Your task to perform on an android device: open sync settings in chrome Image 0: 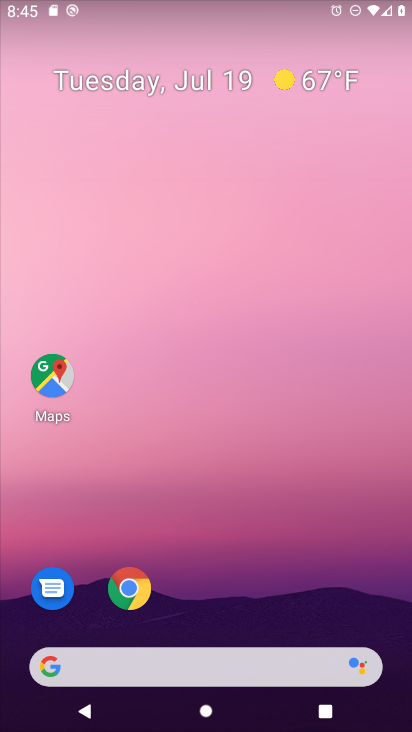
Step 0: press home button
Your task to perform on an android device: open sync settings in chrome Image 1: 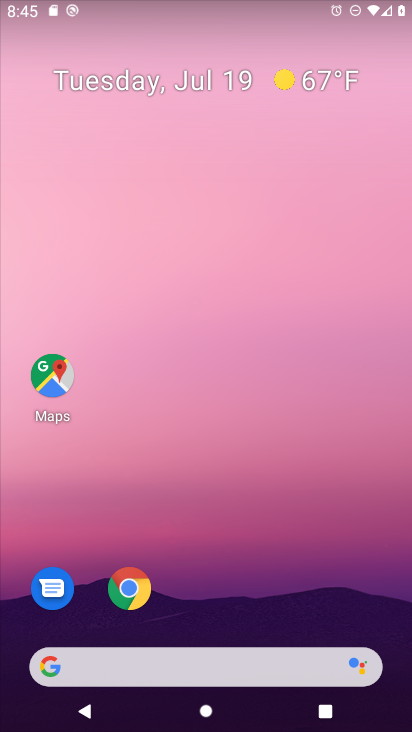
Step 1: drag from (342, 595) to (354, 129)
Your task to perform on an android device: open sync settings in chrome Image 2: 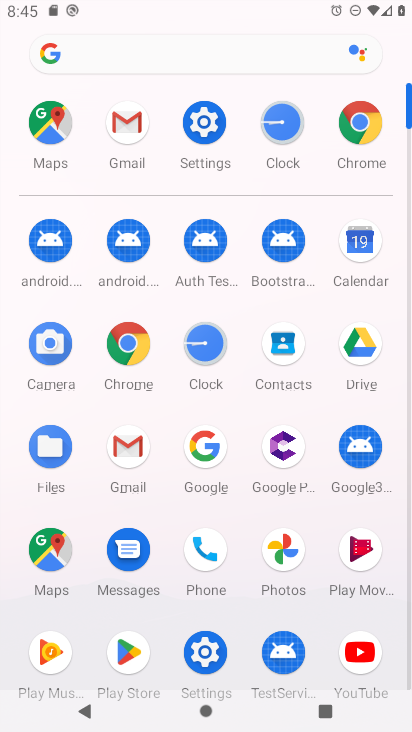
Step 2: click (126, 344)
Your task to perform on an android device: open sync settings in chrome Image 3: 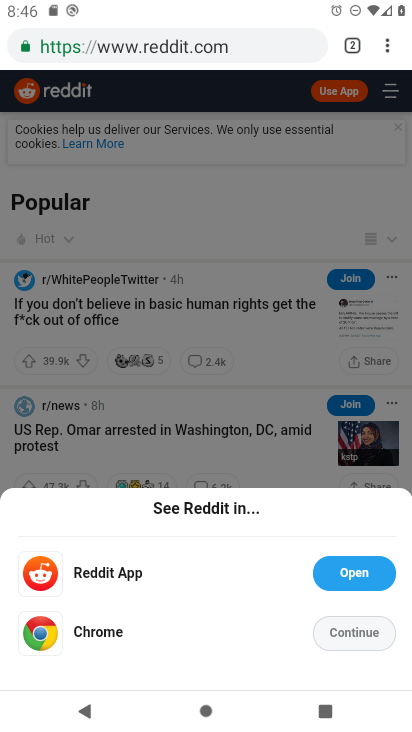
Step 3: click (389, 50)
Your task to perform on an android device: open sync settings in chrome Image 4: 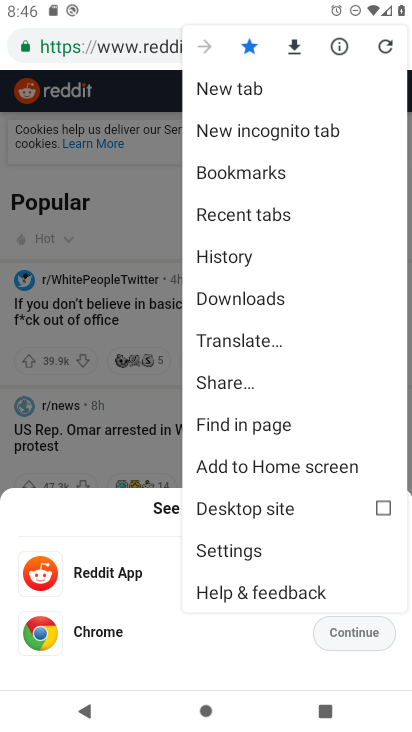
Step 4: click (262, 552)
Your task to perform on an android device: open sync settings in chrome Image 5: 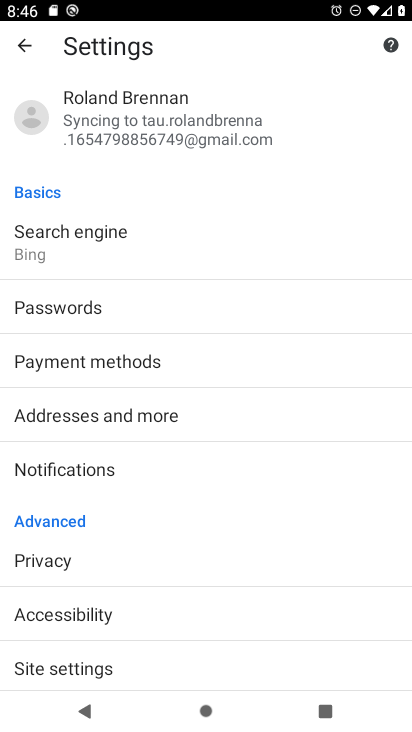
Step 5: drag from (264, 550) to (280, 459)
Your task to perform on an android device: open sync settings in chrome Image 6: 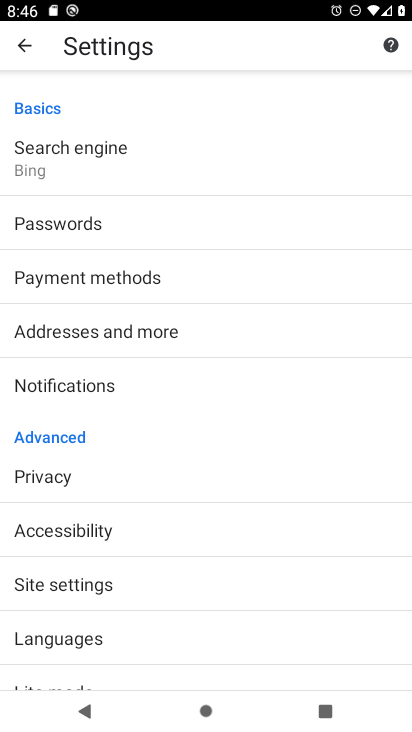
Step 6: drag from (304, 545) to (330, 261)
Your task to perform on an android device: open sync settings in chrome Image 7: 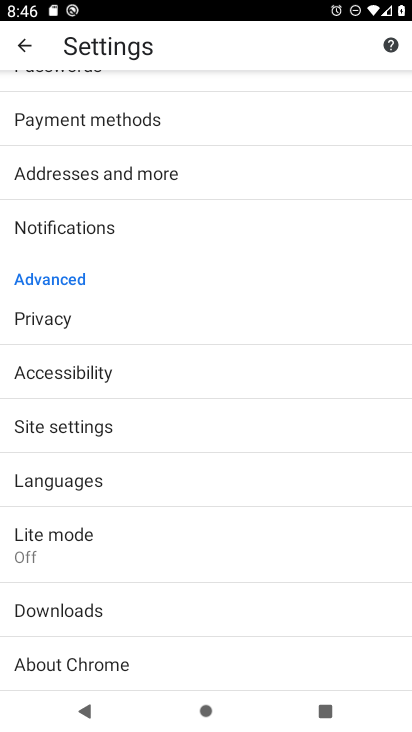
Step 7: click (325, 416)
Your task to perform on an android device: open sync settings in chrome Image 8: 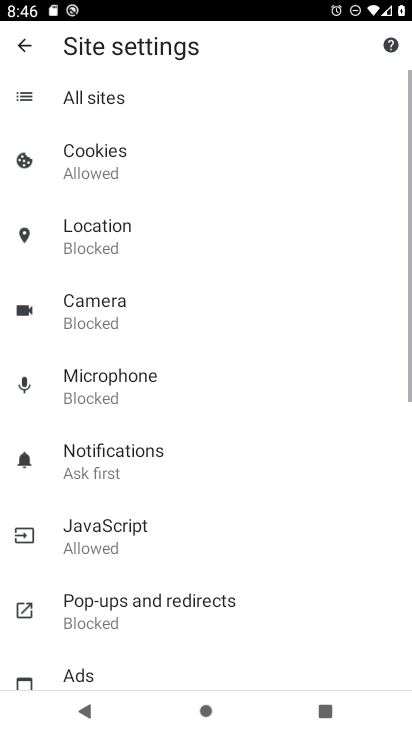
Step 8: drag from (307, 481) to (308, 409)
Your task to perform on an android device: open sync settings in chrome Image 9: 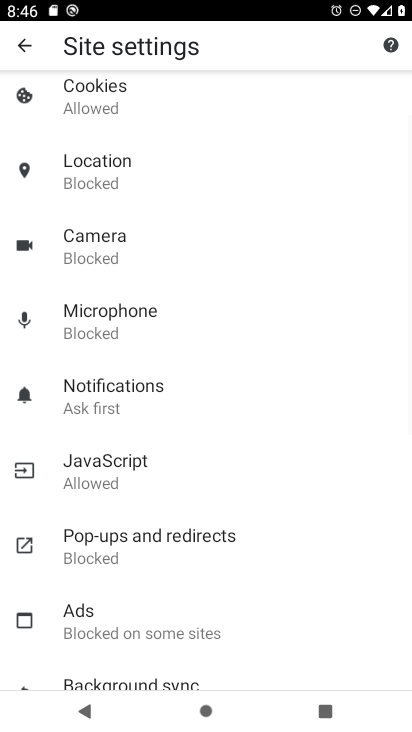
Step 9: drag from (308, 485) to (320, 358)
Your task to perform on an android device: open sync settings in chrome Image 10: 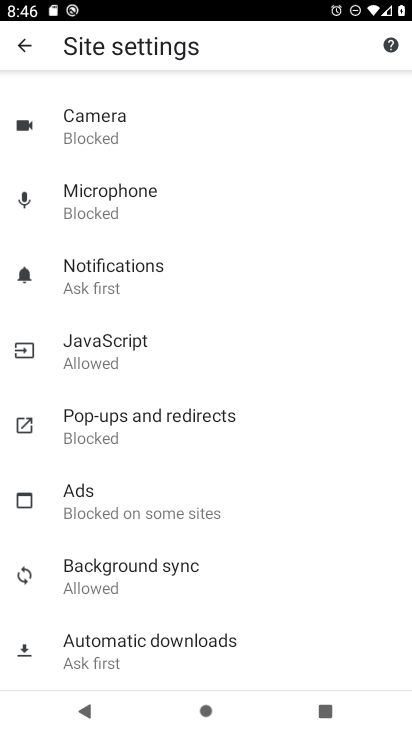
Step 10: drag from (343, 532) to (356, 342)
Your task to perform on an android device: open sync settings in chrome Image 11: 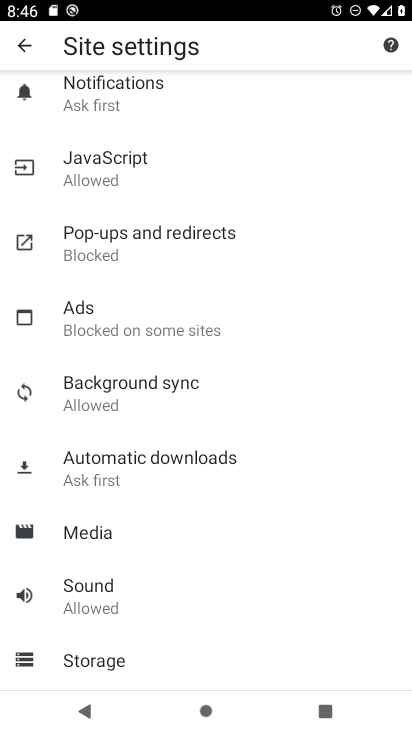
Step 11: click (309, 387)
Your task to perform on an android device: open sync settings in chrome Image 12: 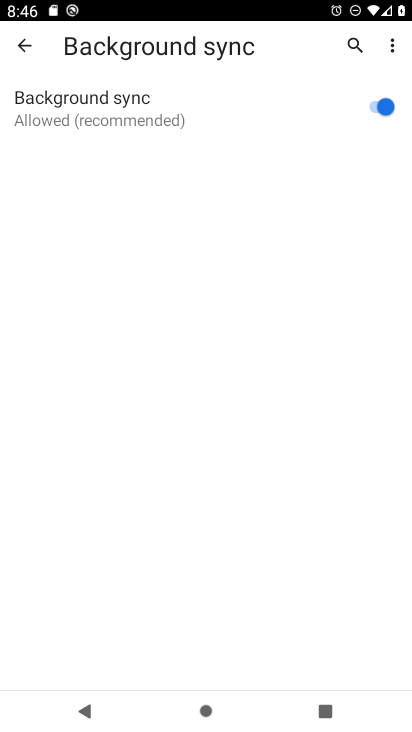
Step 12: task complete